Your task to perform on an android device: toggle location history Image 0: 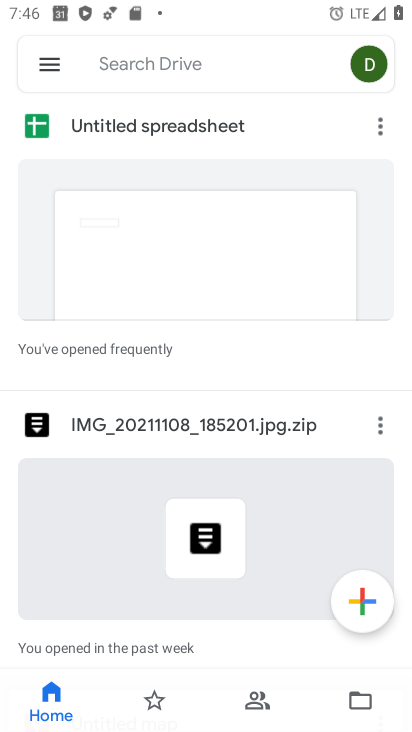
Step 0: press home button
Your task to perform on an android device: toggle location history Image 1: 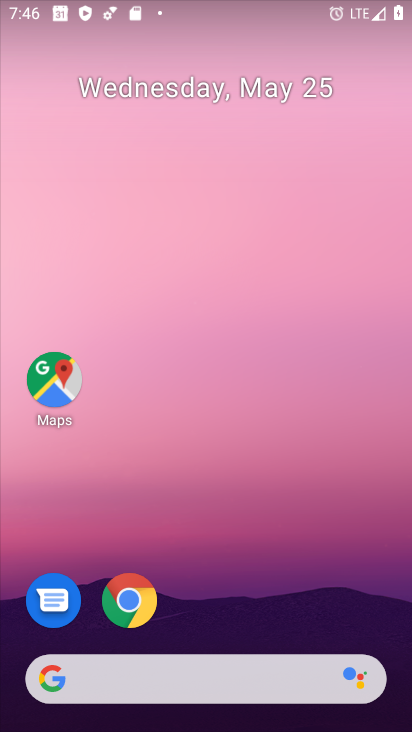
Step 1: drag from (325, 584) to (346, 67)
Your task to perform on an android device: toggle location history Image 2: 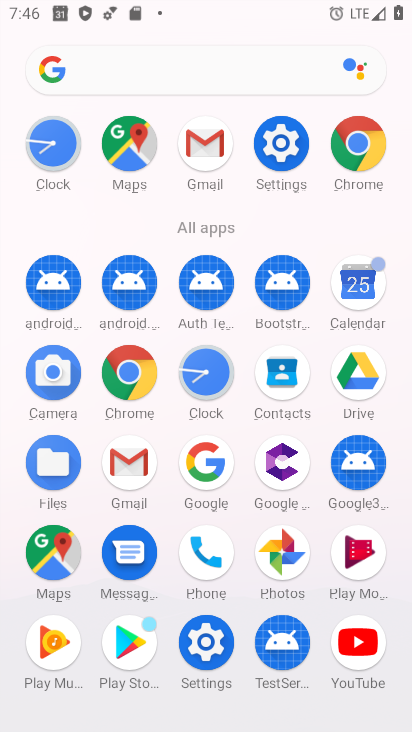
Step 2: click (290, 162)
Your task to perform on an android device: toggle location history Image 3: 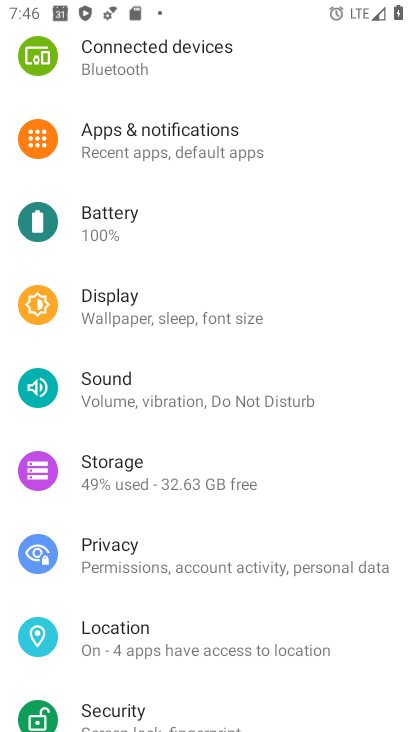
Step 3: drag from (215, 579) to (175, 627)
Your task to perform on an android device: toggle location history Image 4: 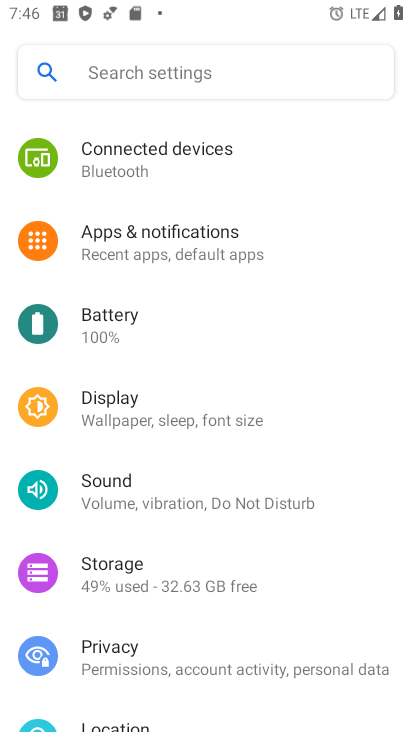
Step 4: drag from (148, 279) to (252, 167)
Your task to perform on an android device: toggle location history Image 5: 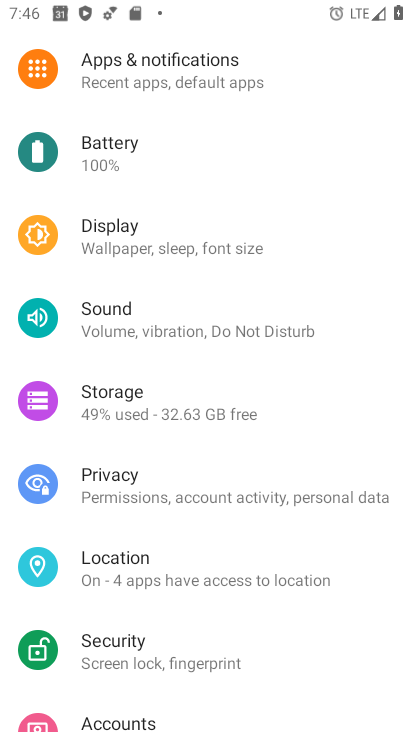
Step 5: drag from (192, 501) to (297, 278)
Your task to perform on an android device: toggle location history Image 6: 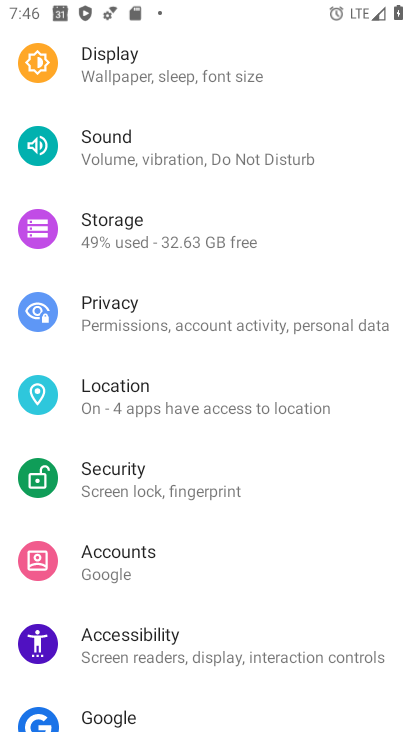
Step 6: click (177, 393)
Your task to perform on an android device: toggle location history Image 7: 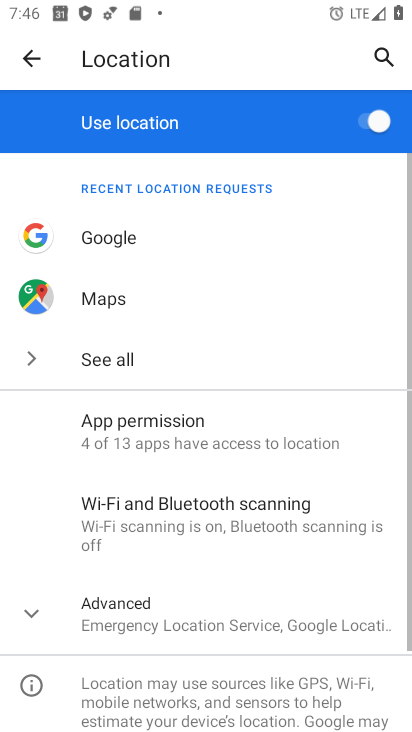
Step 7: click (201, 634)
Your task to perform on an android device: toggle location history Image 8: 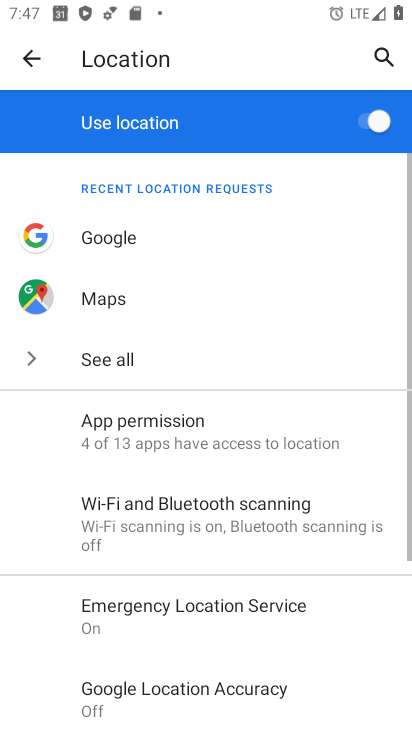
Step 8: drag from (348, 657) to (351, 180)
Your task to perform on an android device: toggle location history Image 9: 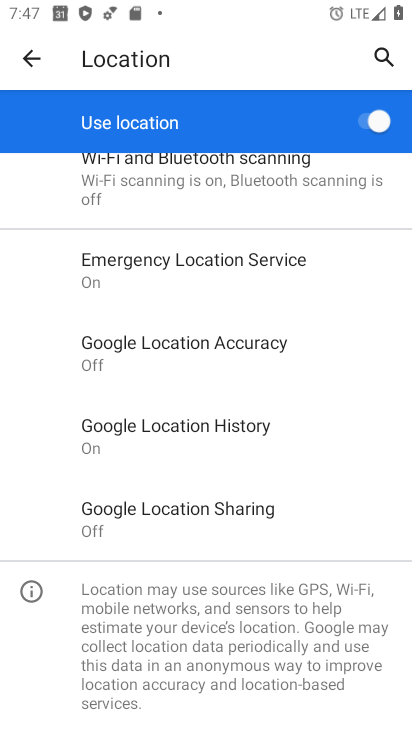
Step 9: click (221, 428)
Your task to perform on an android device: toggle location history Image 10: 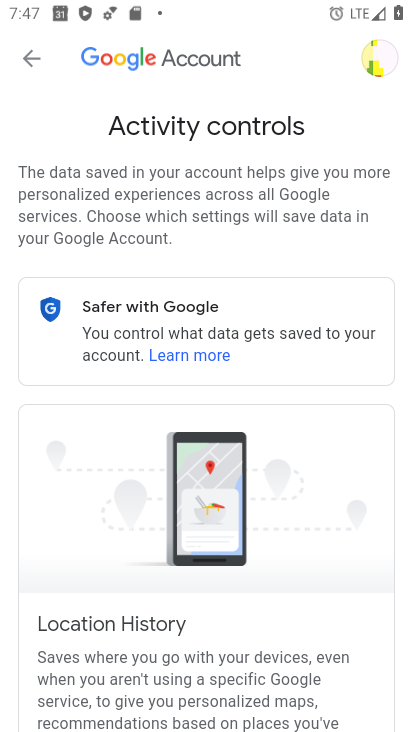
Step 10: drag from (269, 476) to (317, 88)
Your task to perform on an android device: toggle location history Image 11: 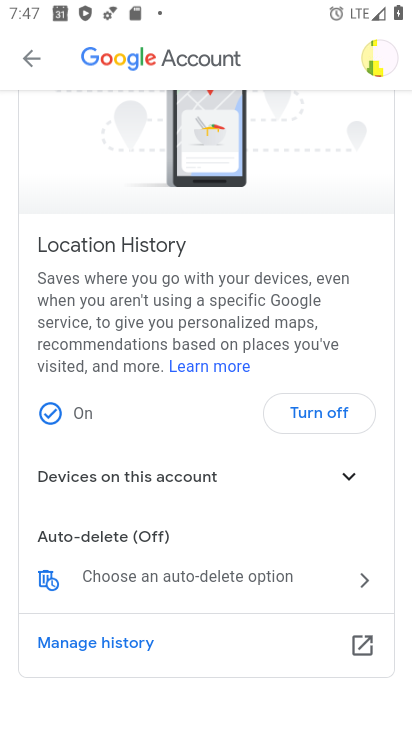
Step 11: click (300, 426)
Your task to perform on an android device: toggle location history Image 12: 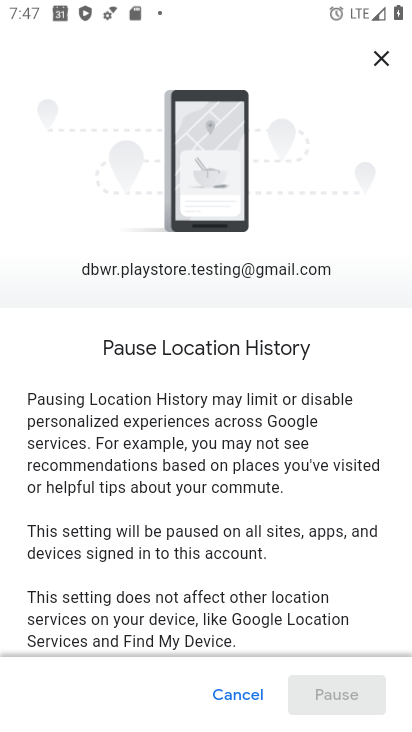
Step 12: drag from (264, 581) to (291, 152)
Your task to perform on an android device: toggle location history Image 13: 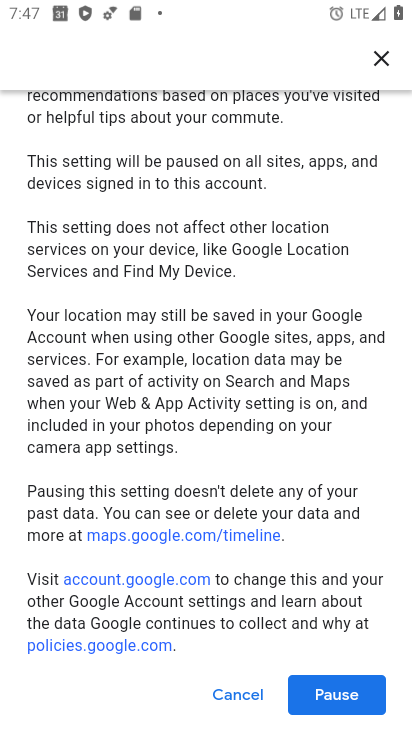
Step 13: click (347, 689)
Your task to perform on an android device: toggle location history Image 14: 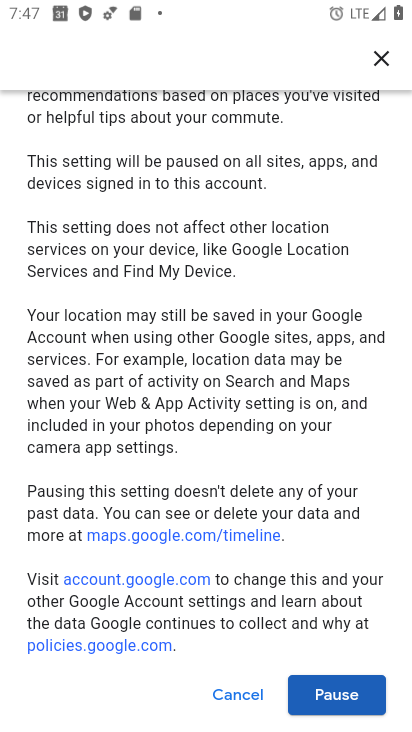
Step 14: click (346, 685)
Your task to perform on an android device: toggle location history Image 15: 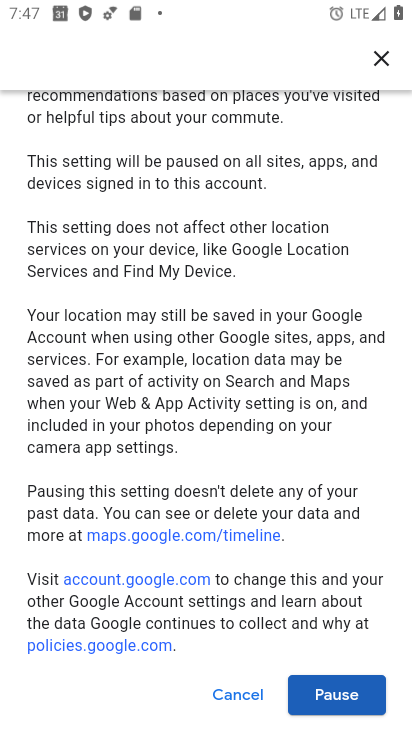
Step 15: click (324, 684)
Your task to perform on an android device: toggle location history Image 16: 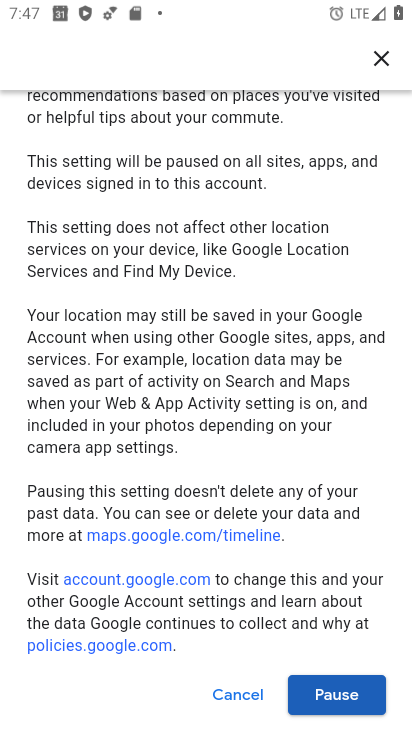
Step 16: click (360, 707)
Your task to perform on an android device: toggle location history Image 17: 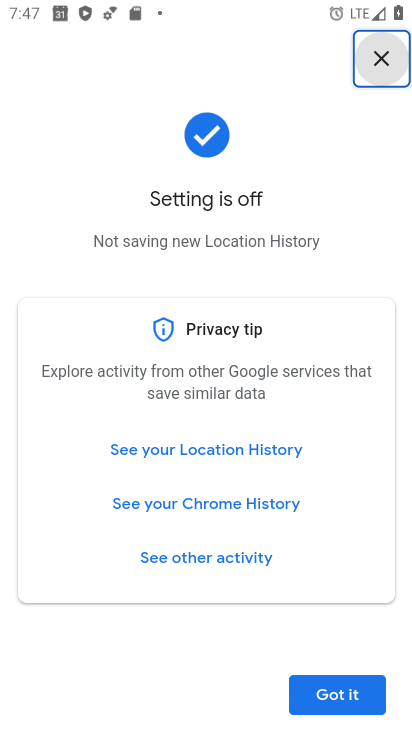
Step 17: task complete